Your task to perform on an android device: What's the weather today? Image 0: 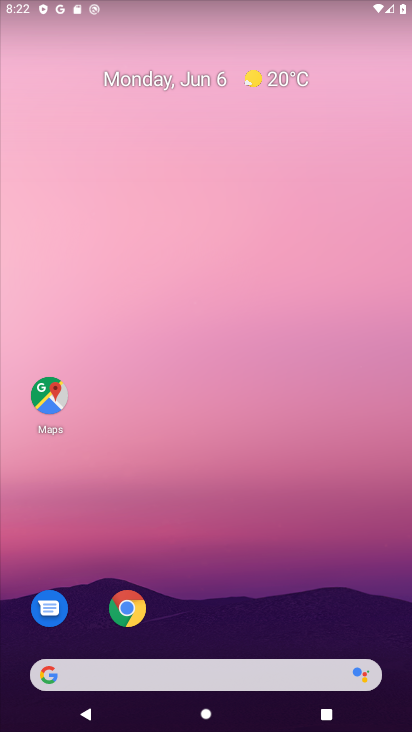
Step 0: click (215, 671)
Your task to perform on an android device: What's the weather today? Image 1: 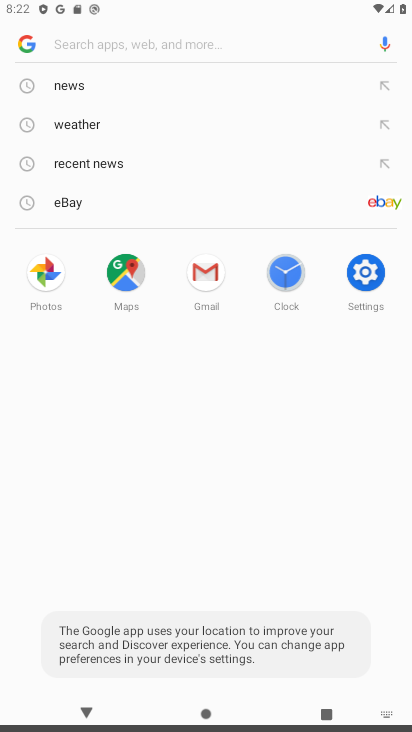
Step 1: click (133, 131)
Your task to perform on an android device: What's the weather today? Image 2: 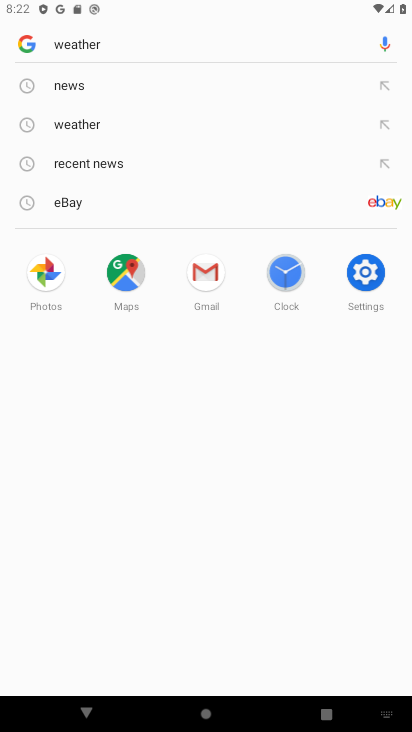
Step 2: task complete